Your task to perform on an android device: Go to ESPN.com Image 0: 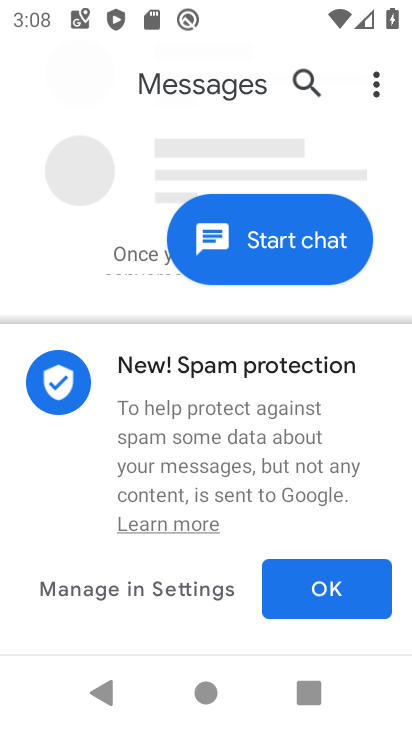
Step 0: press home button
Your task to perform on an android device: Go to ESPN.com Image 1: 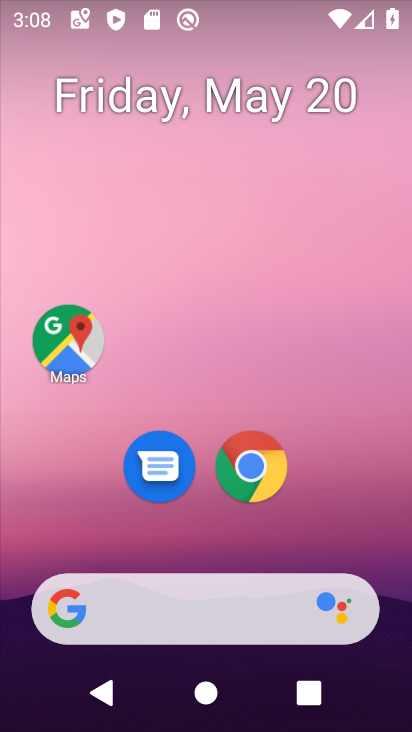
Step 1: drag from (185, 555) to (185, 166)
Your task to perform on an android device: Go to ESPN.com Image 2: 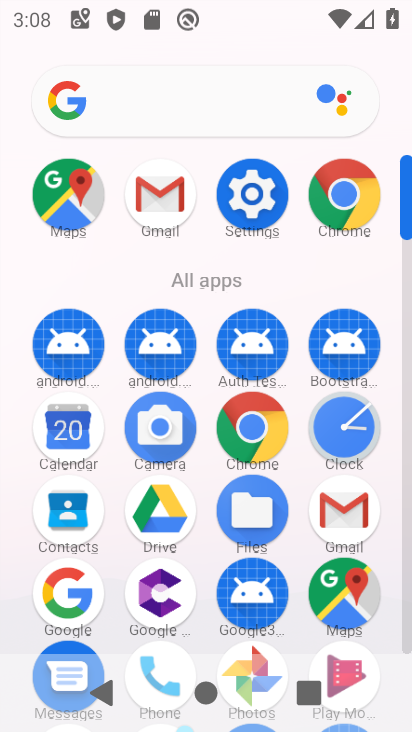
Step 2: click (352, 195)
Your task to perform on an android device: Go to ESPN.com Image 3: 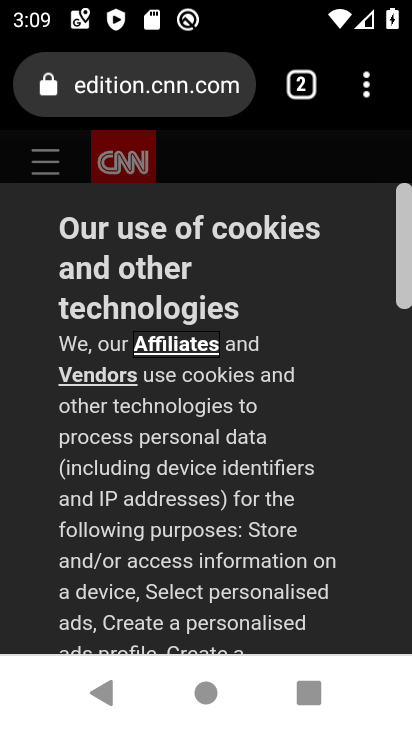
Step 3: press home button
Your task to perform on an android device: Go to ESPN.com Image 4: 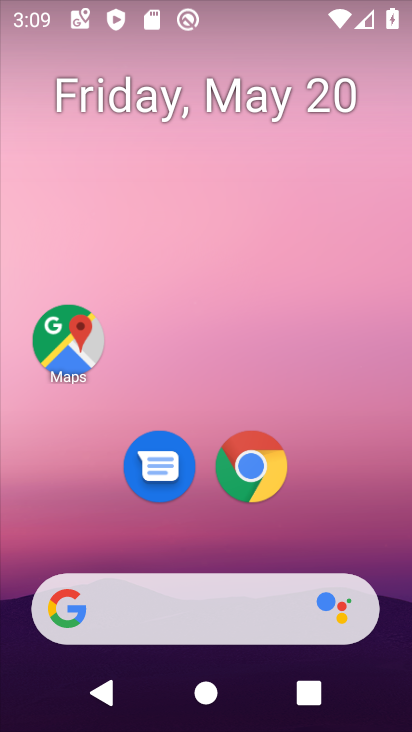
Step 4: click (254, 467)
Your task to perform on an android device: Go to ESPN.com Image 5: 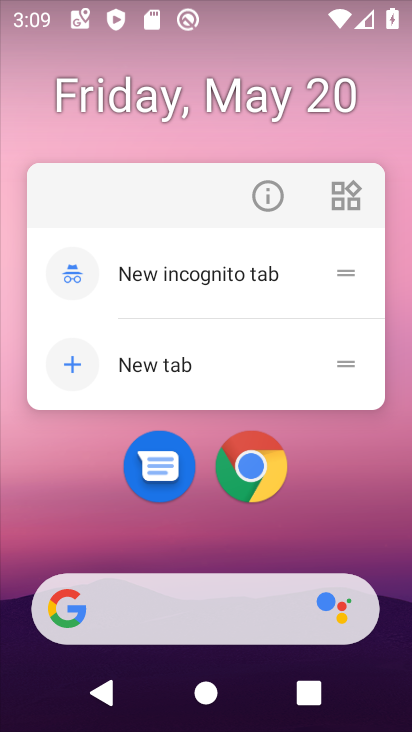
Step 5: click (229, 473)
Your task to perform on an android device: Go to ESPN.com Image 6: 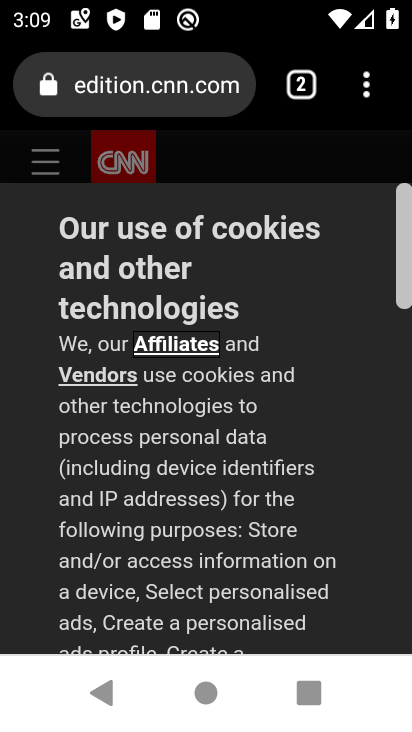
Step 6: click (289, 84)
Your task to perform on an android device: Go to ESPN.com Image 7: 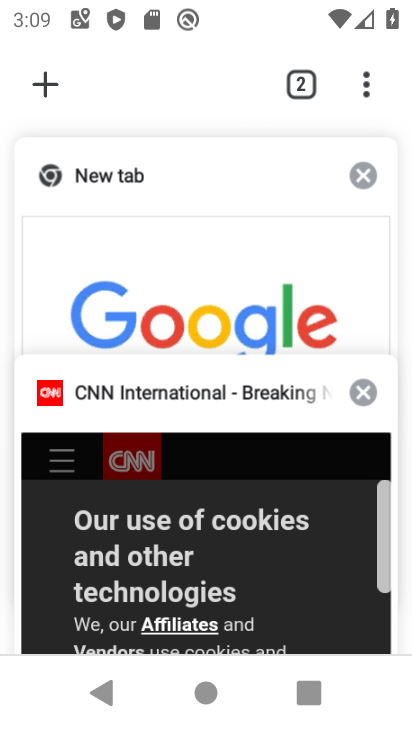
Step 7: click (368, 180)
Your task to perform on an android device: Go to ESPN.com Image 8: 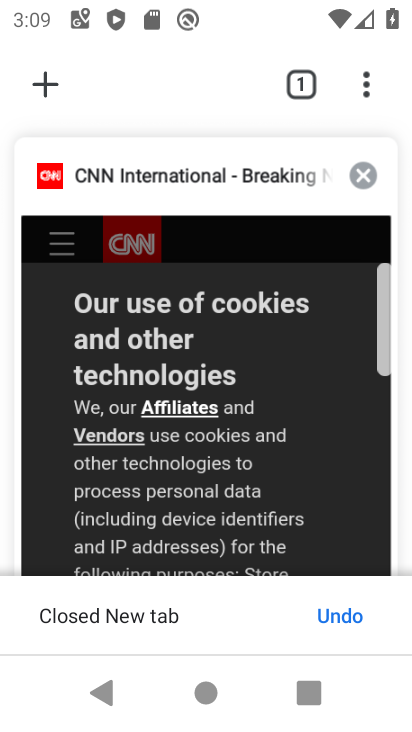
Step 8: click (368, 180)
Your task to perform on an android device: Go to ESPN.com Image 9: 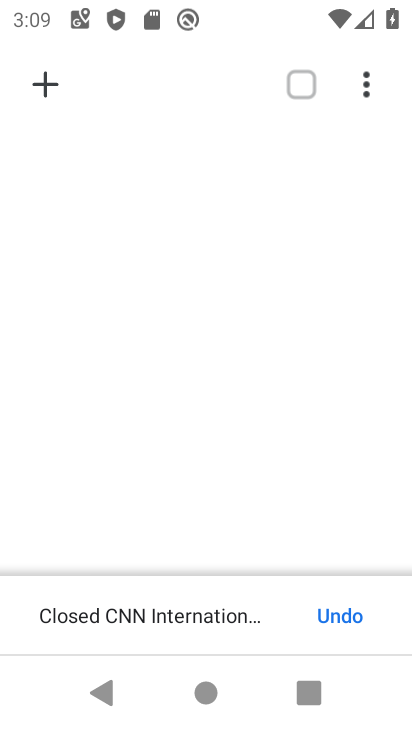
Step 9: click (34, 86)
Your task to perform on an android device: Go to ESPN.com Image 10: 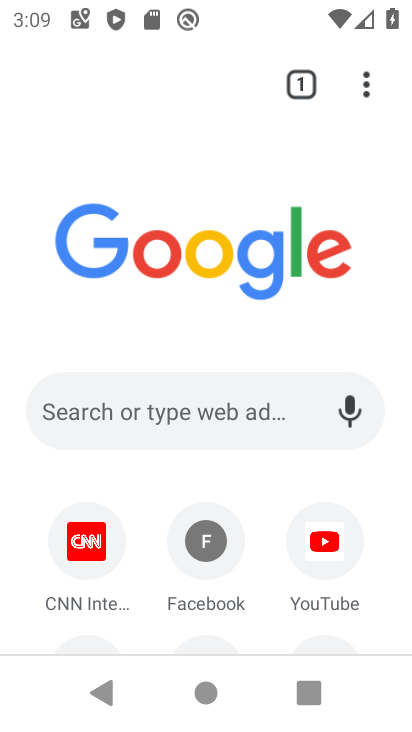
Step 10: drag from (172, 510) to (153, 210)
Your task to perform on an android device: Go to ESPN.com Image 11: 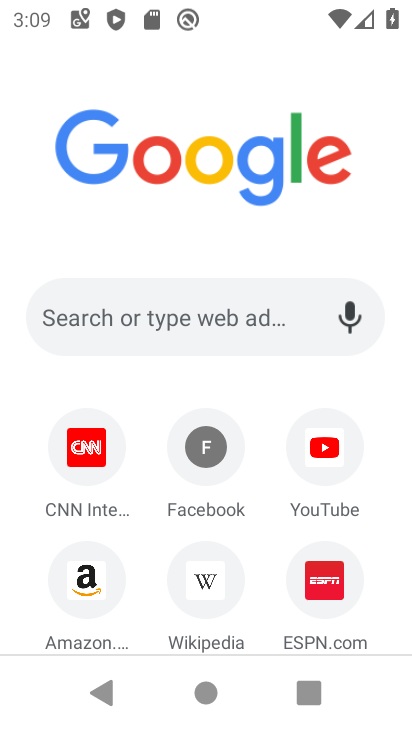
Step 11: drag from (136, 581) to (172, 203)
Your task to perform on an android device: Go to ESPN.com Image 12: 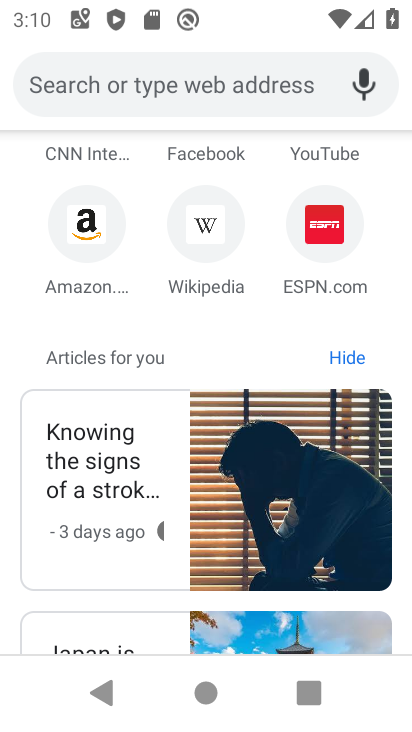
Step 12: click (304, 239)
Your task to perform on an android device: Go to ESPN.com Image 13: 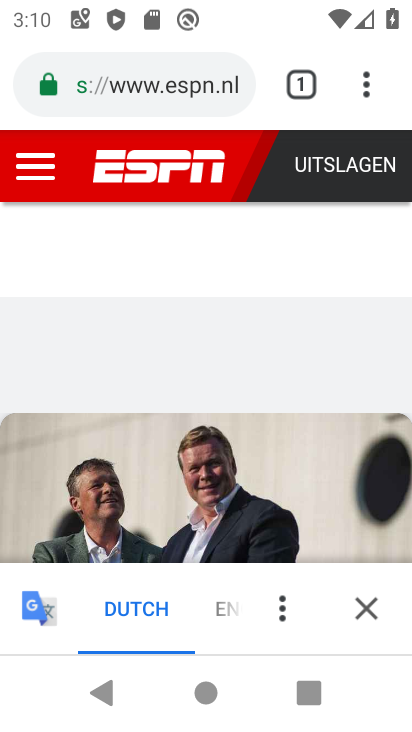
Step 13: task complete